Your task to perform on an android device: visit the assistant section in the google photos Image 0: 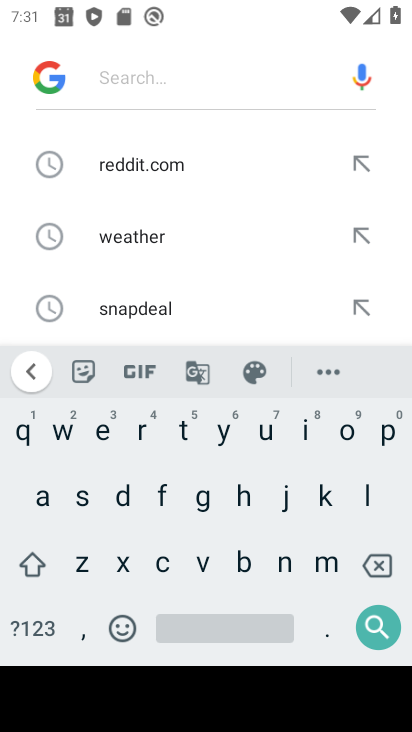
Step 0: press back button
Your task to perform on an android device: visit the assistant section in the google photos Image 1: 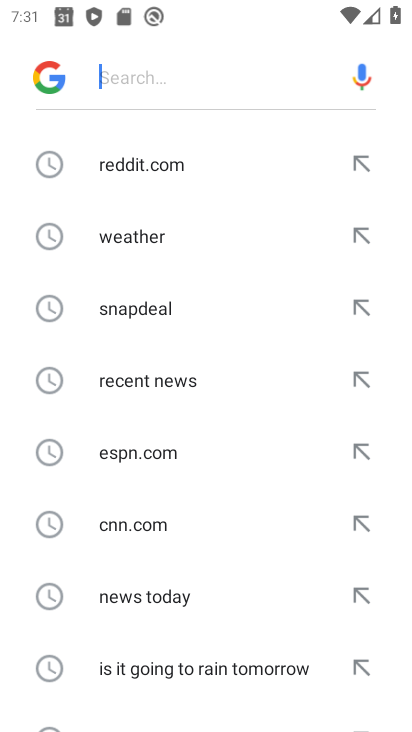
Step 1: press back button
Your task to perform on an android device: visit the assistant section in the google photos Image 2: 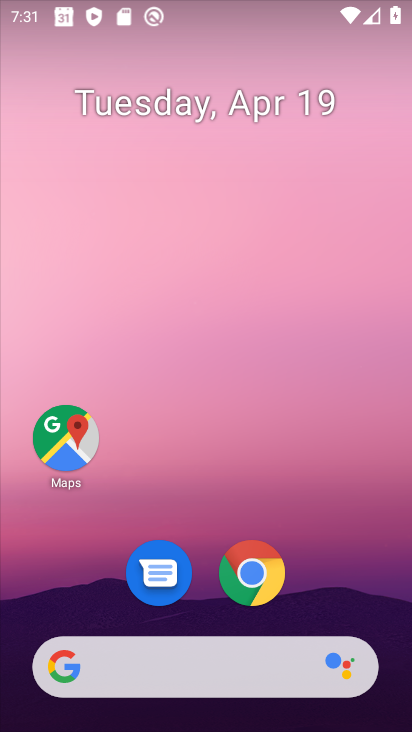
Step 2: drag from (240, 701) to (365, 41)
Your task to perform on an android device: visit the assistant section in the google photos Image 3: 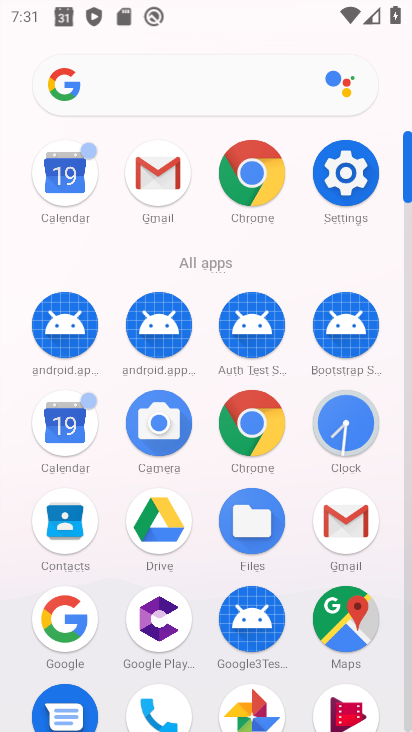
Step 3: click (258, 695)
Your task to perform on an android device: visit the assistant section in the google photos Image 4: 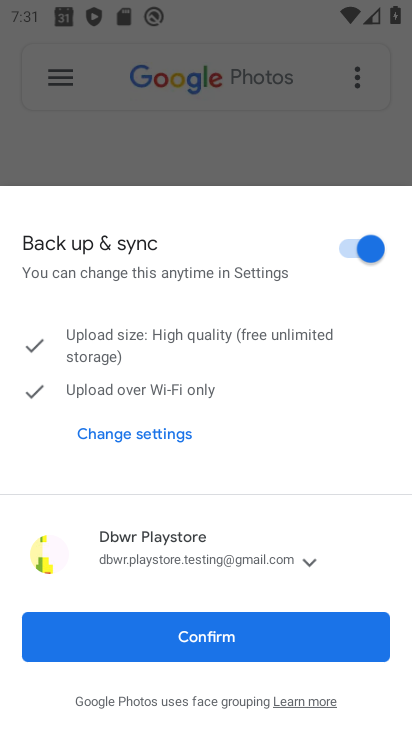
Step 4: click (237, 643)
Your task to perform on an android device: visit the assistant section in the google photos Image 5: 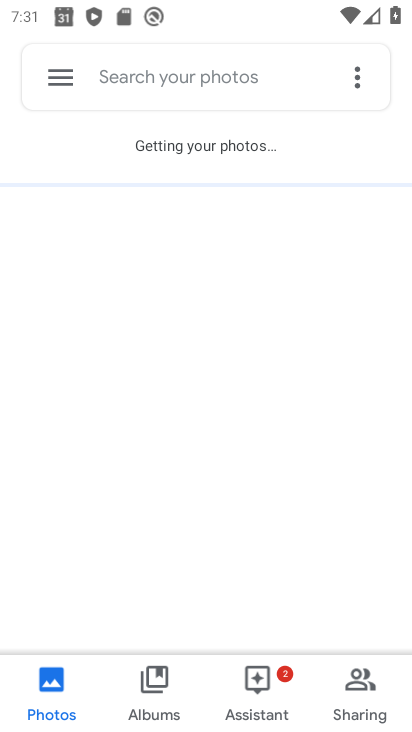
Step 5: click (259, 703)
Your task to perform on an android device: visit the assistant section in the google photos Image 6: 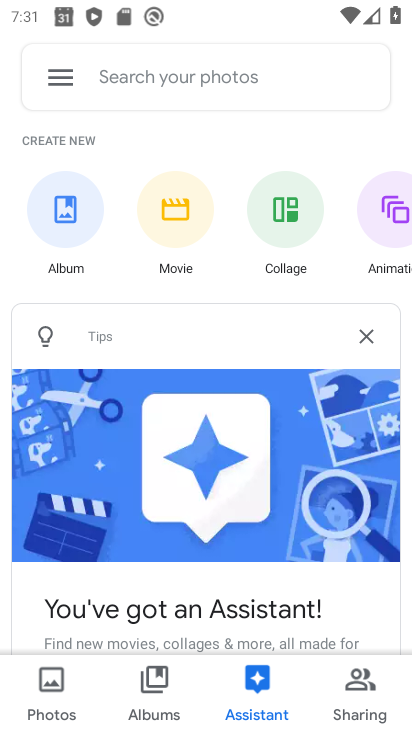
Step 6: task complete